Your task to perform on an android device: change the clock style Image 0: 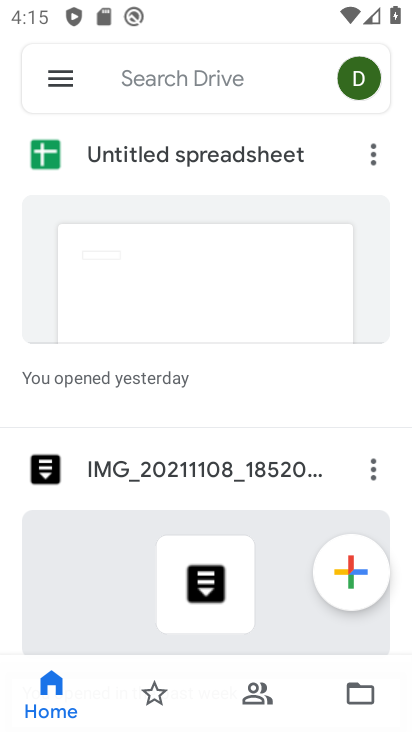
Step 0: press back button
Your task to perform on an android device: change the clock style Image 1: 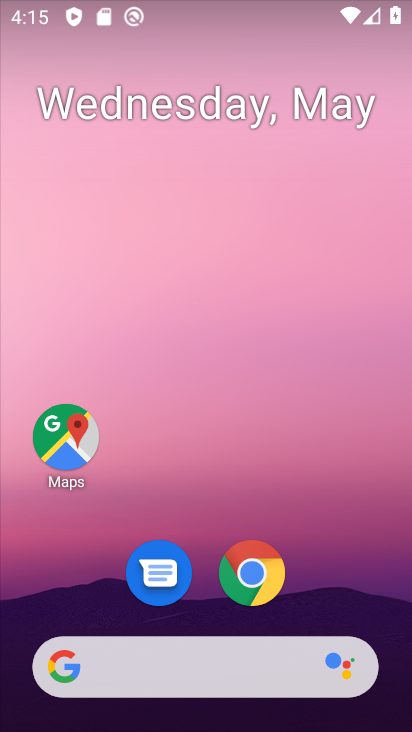
Step 1: drag from (223, 706) to (93, 94)
Your task to perform on an android device: change the clock style Image 2: 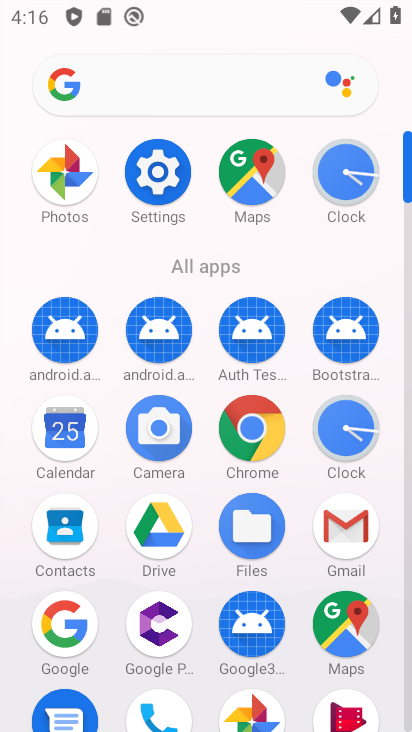
Step 2: click (353, 422)
Your task to perform on an android device: change the clock style Image 3: 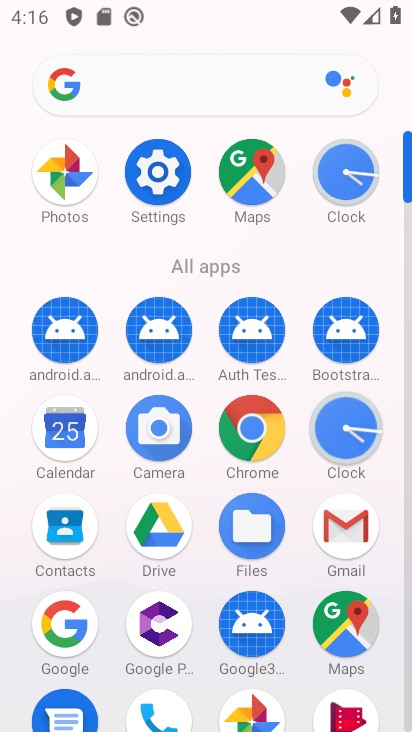
Step 3: click (346, 434)
Your task to perform on an android device: change the clock style Image 4: 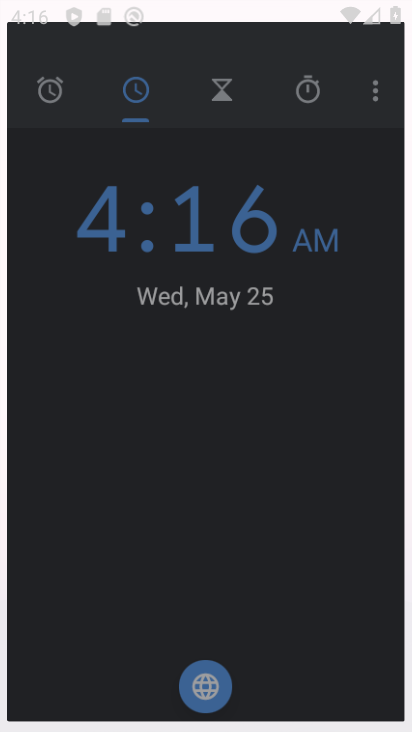
Step 4: click (346, 434)
Your task to perform on an android device: change the clock style Image 5: 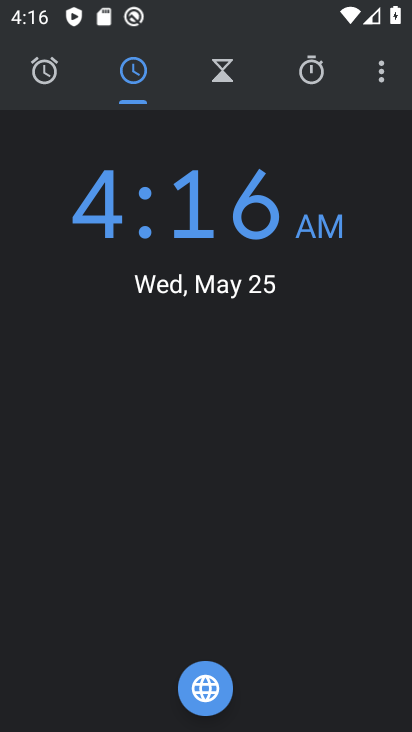
Step 5: click (346, 434)
Your task to perform on an android device: change the clock style Image 6: 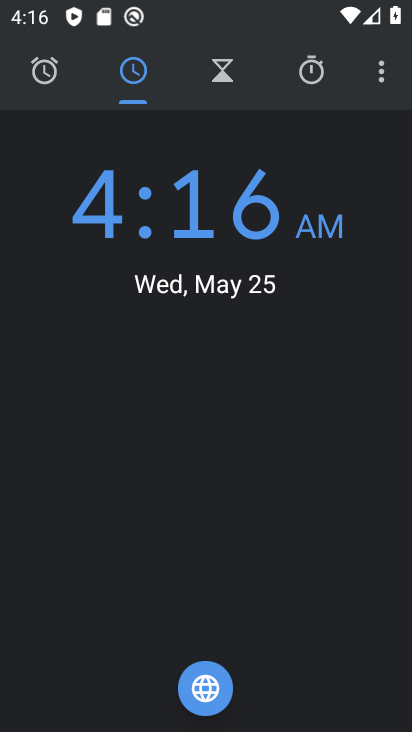
Step 6: click (379, 74)
Your task to perform on an android device: change the clock style Image 7: 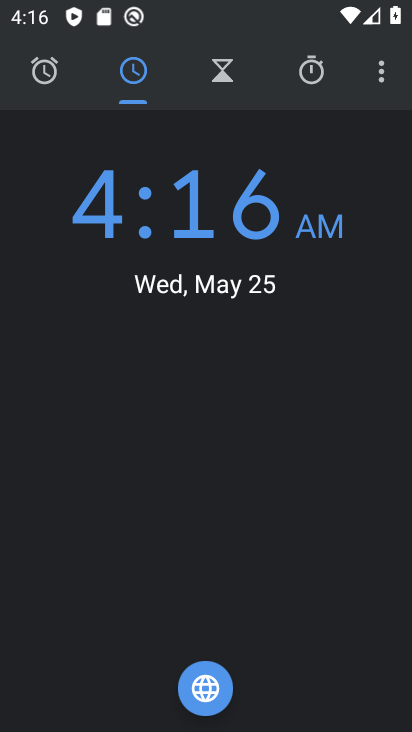
Step 7: click (378, 75)
Your task to perform on an android device: change the clock style Image 8: 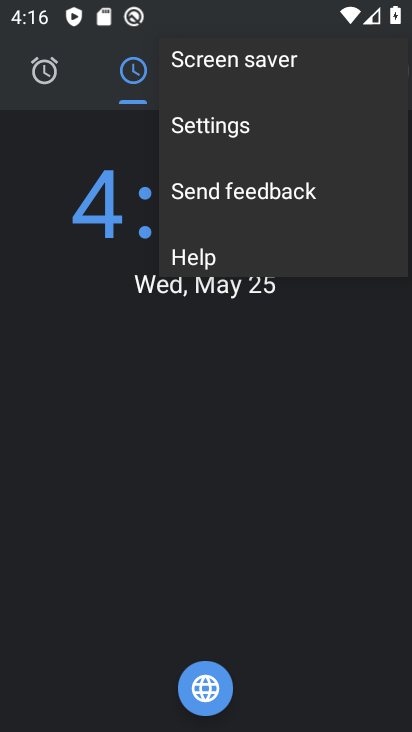
Step 8: click (382, 74)
Your task to perform on an android device: change the clock style Image 9: 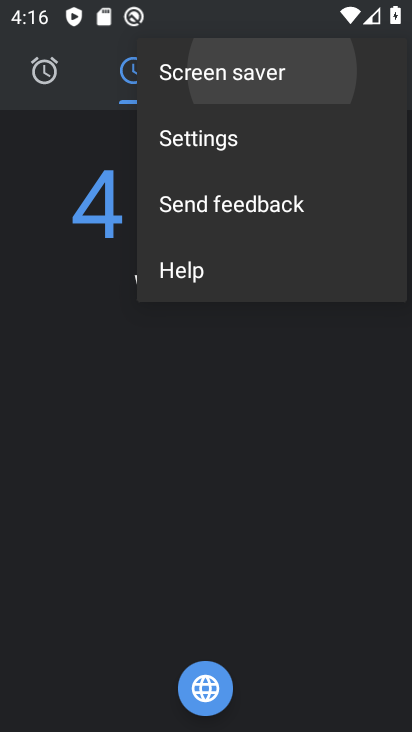
Step 9: click (382, 74)
Your task to perform on an android device: change the clock style Image 10: 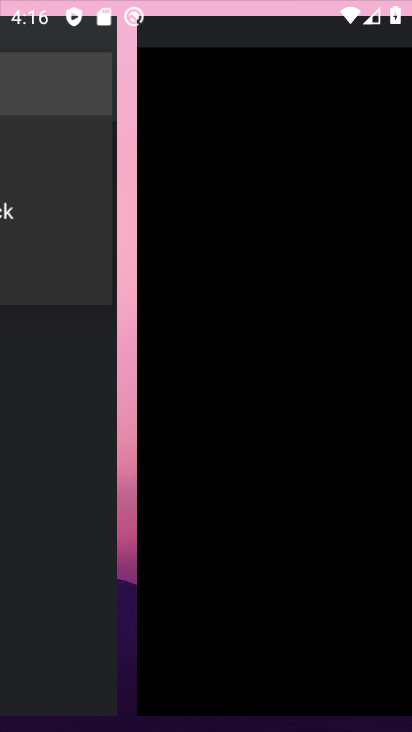
Step 10: click (382, 74)
Your task to perform on an android device: change the clock style Image 11: 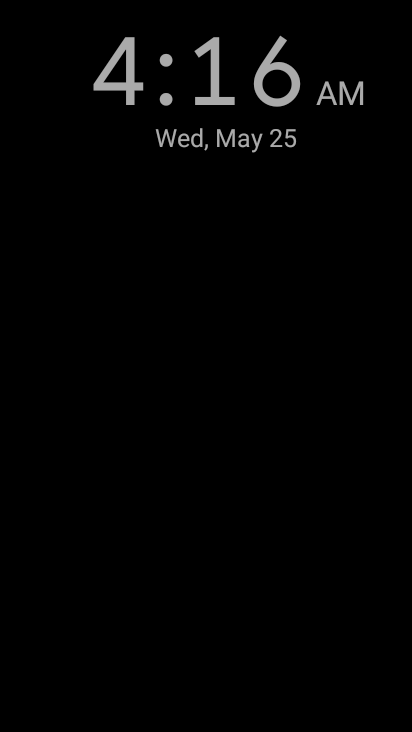
Step 11: press back button
Your task to perform on an android device: change the clock style Image 12: 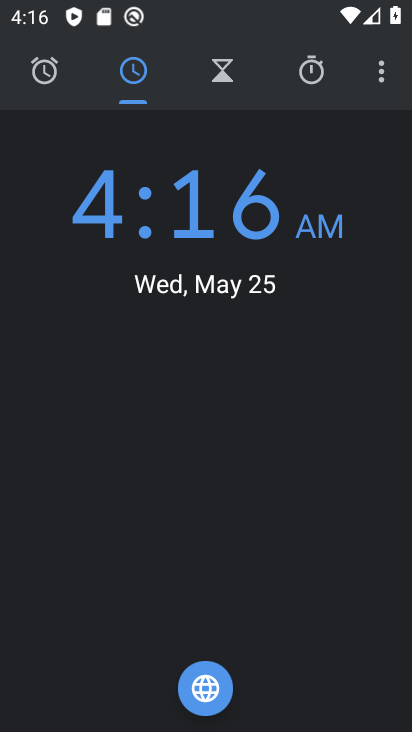
Step 12: drag from (375, 83) to (187, 149)
Your task to perform on an android device: change the clock style Image 13: 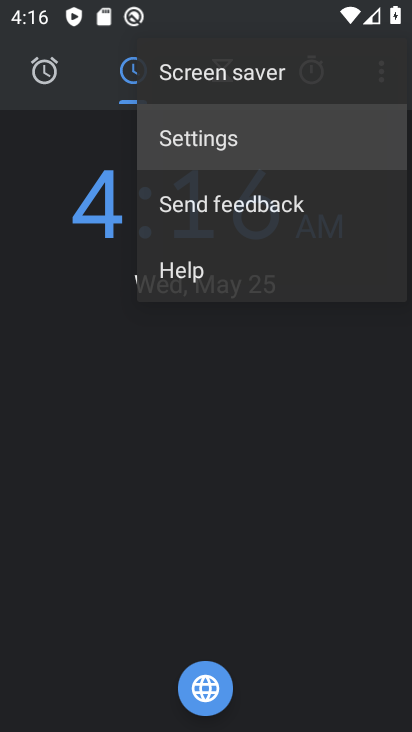
Step 13: click (191, 152)
Your task to perform on an android device: change the clock style Image 14: 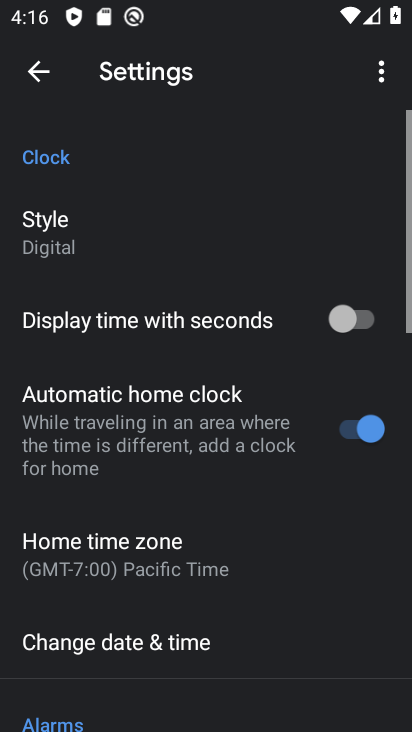
Step 14: click (203, 148)
Your task to perform on an android device: change the clock style Image 15: 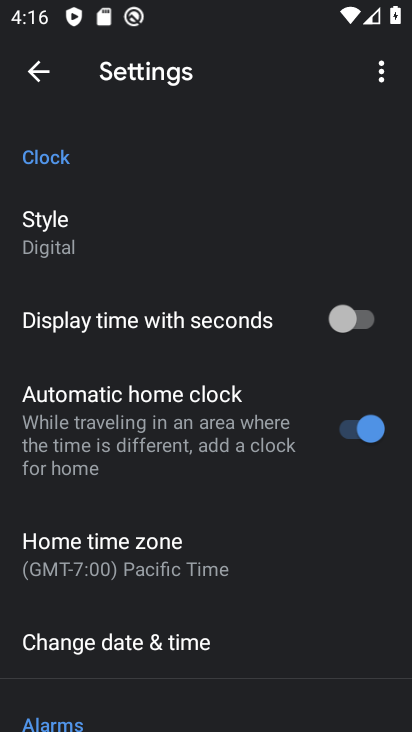
Step 15: drag from (144, 436) to (144, 230)
Your task to perform on an android device: change the clock style Image 16: 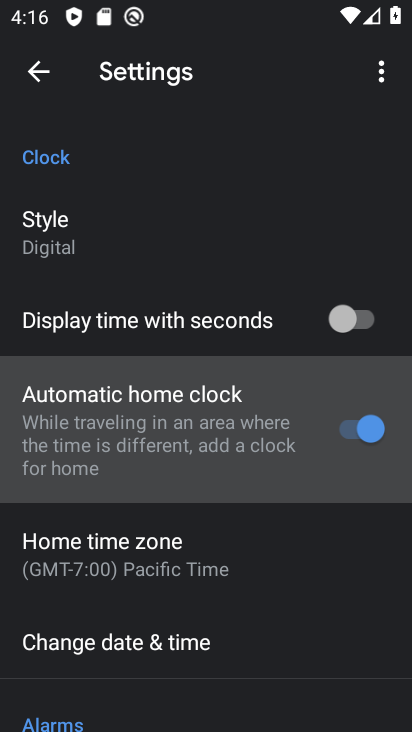
Step 16: drag from (173, 447) to (158, 149)
Your task to perform on an android device: change the clock style Image 17: 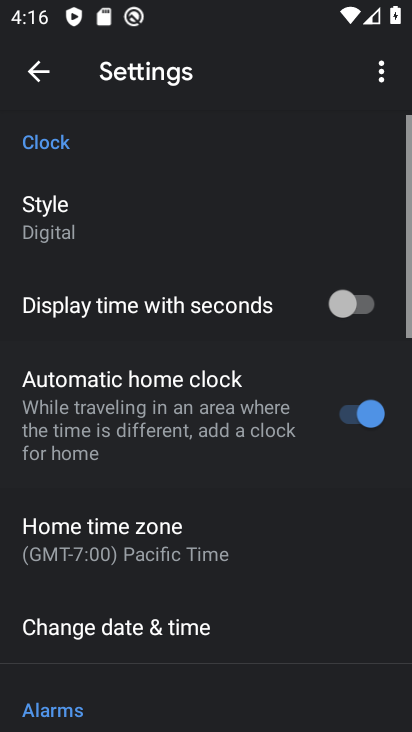
Step 17: drag from (206, 443) to (168, 163)
Your task to perform on an android device: change the clock style Image 18: 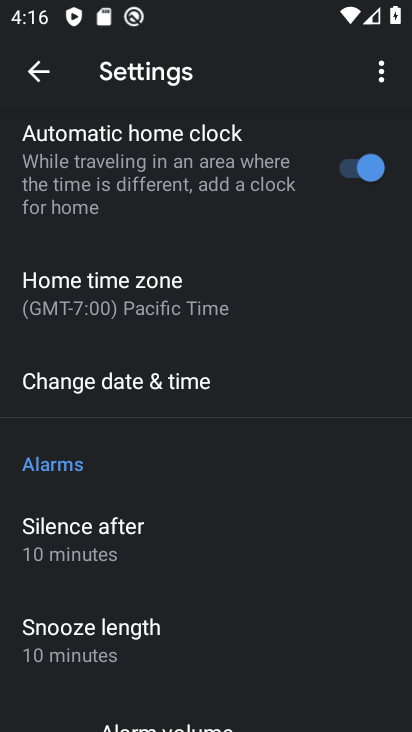
Step 18: click (231, 261)
Your task to perform on an android device: change the clock style Image 19: 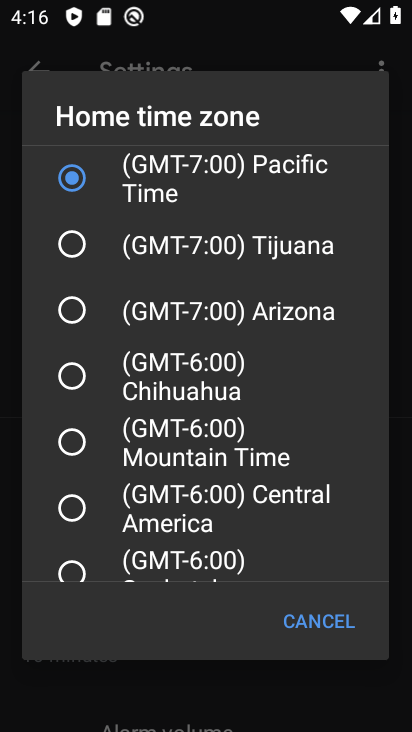
Step 19: click (297, 621)
Your task to perform on an android device: change the clock style Image 20: 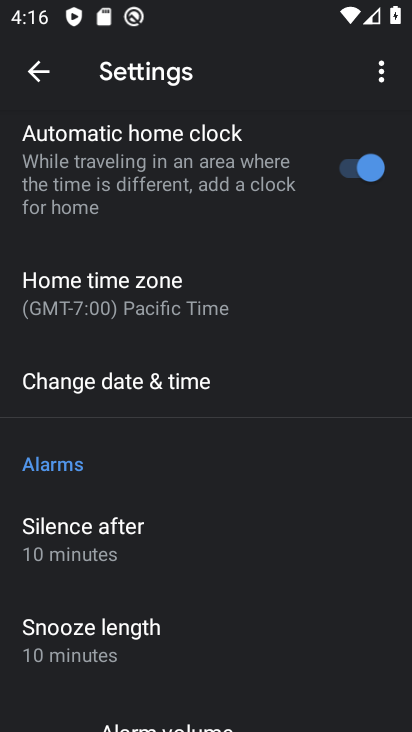
Step 20: drag from (201, 145) to (179, 441)
Your task to perform on an android device: change the clock style Image 21: 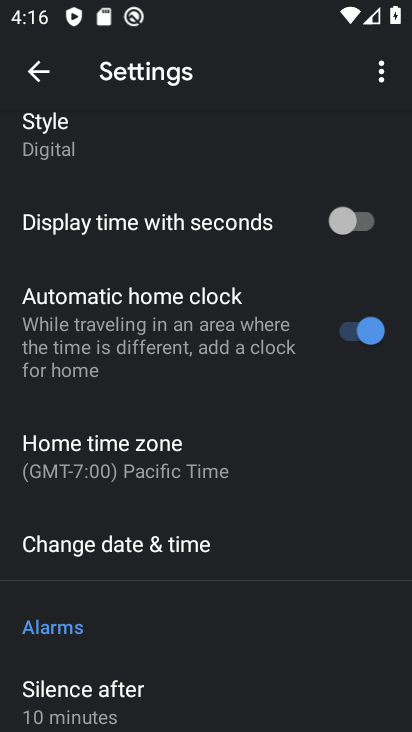
Step 21: click (340, 209)
Your task to perform on an android device: change the clock style Image 22: 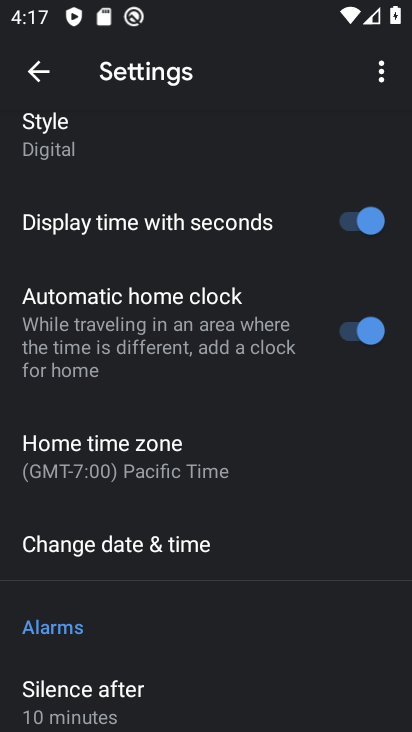
Step 22: click (365, 221)
Your task to perform on an android device: change the clock style Image 23: 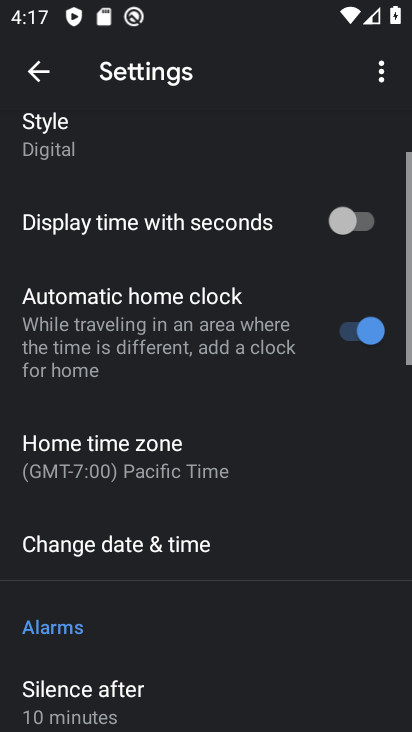
Step 23: click (96, 133)
Your task to perform on an android device: change the clock style Image 24: 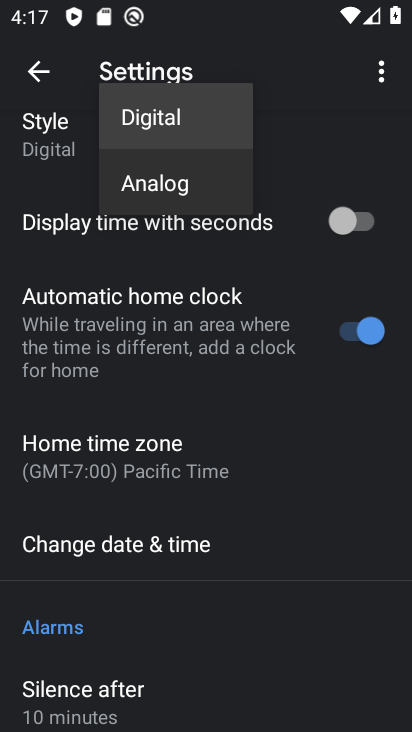
Step 24: click (140, 181)
Your task to perform on an android device: change the clock style Image 25: 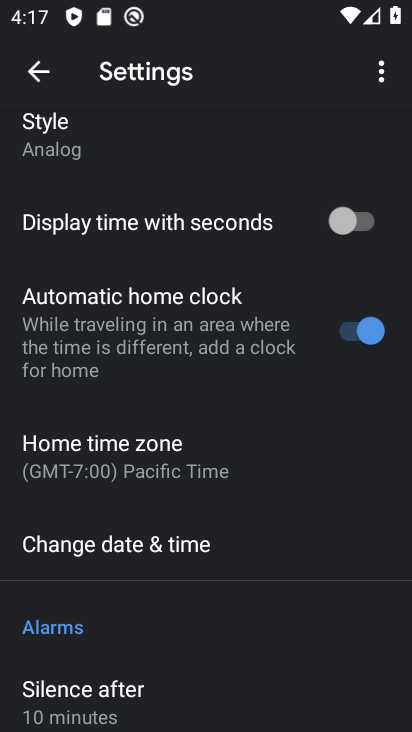
Step 25: task complete